Your task to perform on an android device: Go to accessibility settings Image 0: 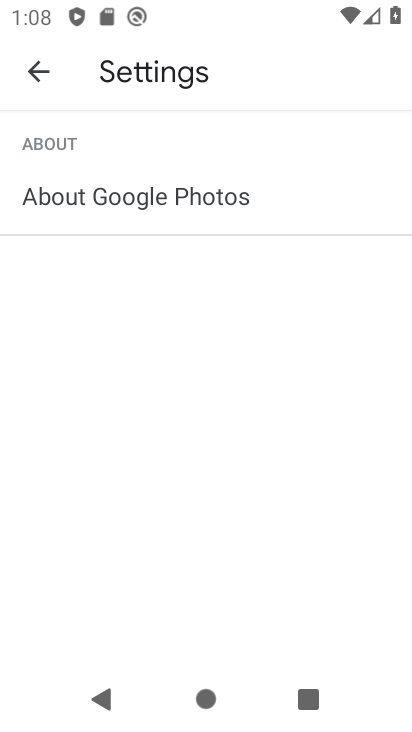
Step 0: press back button
Your task to perform on an android device: Go to accessibility settings Image 1: 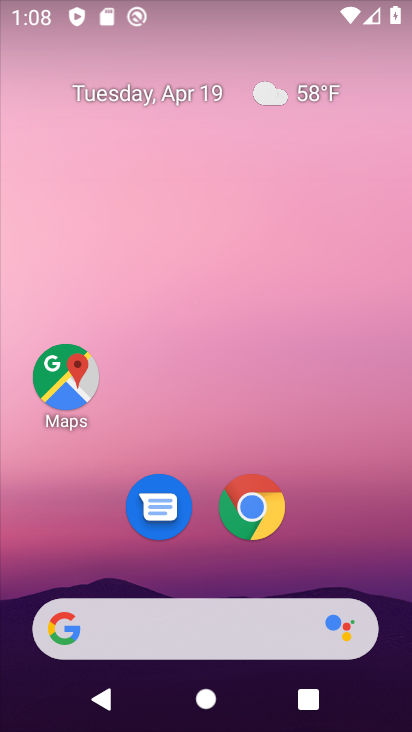
Step 1: drag from (199, 555) to (207, 104)
Your task to perform on an android device: Go to accessibility settings Image 2: 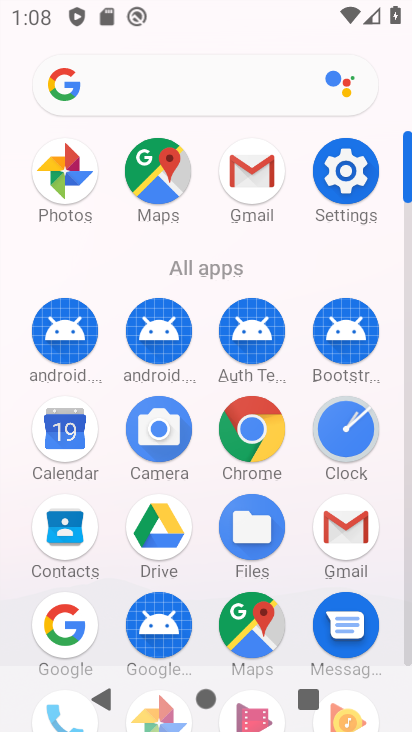
Step 2: click (346, 164)
Your task to perform on an android device: Go to accessibility settings Image 3: 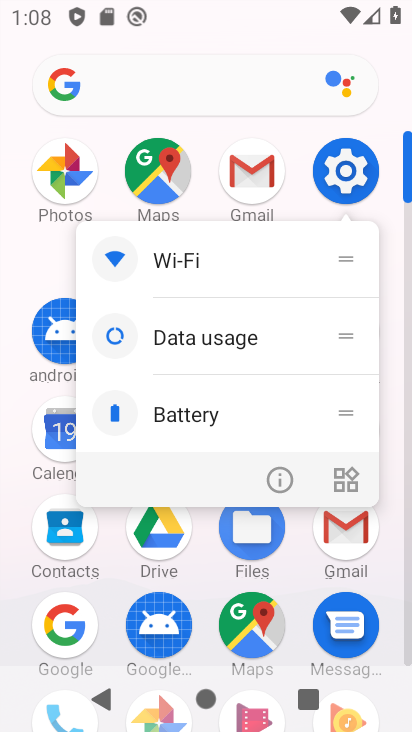
Step 3: click (351, 165)
Your task to perform on an android device: Go to accessibility settings Image 4: 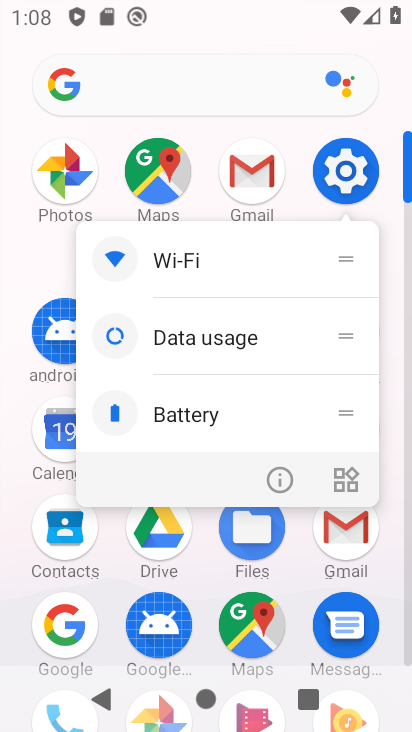
Step 4: click (345, 167)
Your task to perform on an android device: Go to accessibility settings Image 5: 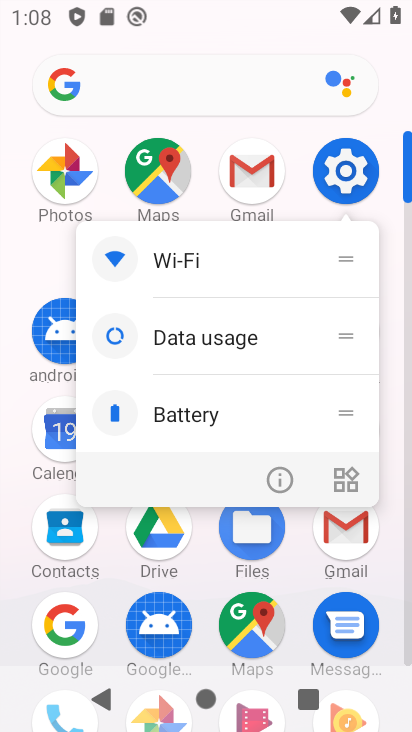
Step 5: click (345, 165)
Your task to perform on an android device: Go to accessibility settings Image 6: 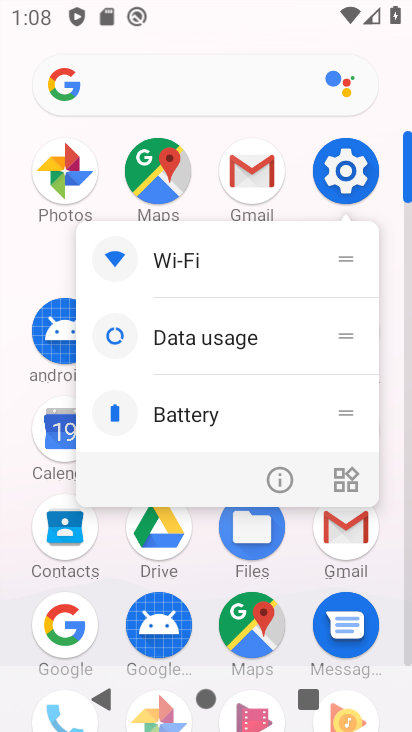
Step 6: click (344, 170)
Your task to perform on an android device: Go to accessibility settings Image 7: 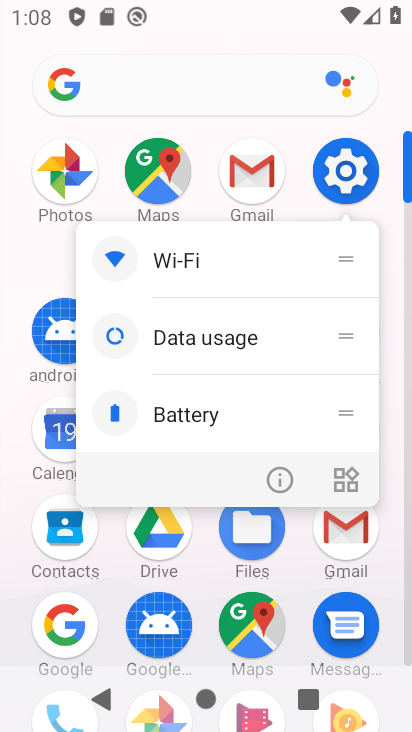
Step 7: click (351, 172)
Your task to perform on an android device: Go to accessibility settings Image 8: 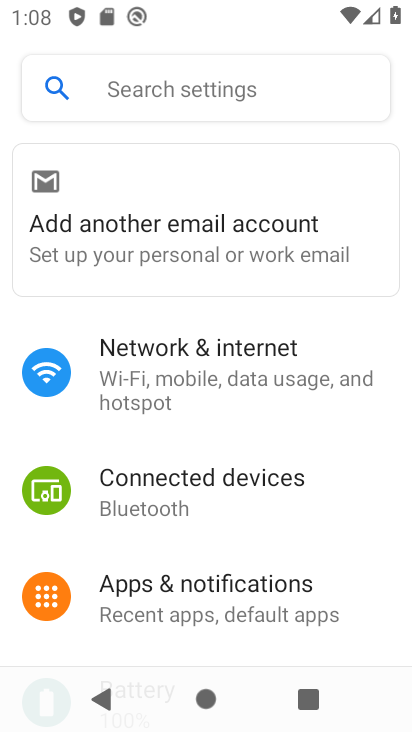
Step 8: drag from (248, 571) to (274, 58)
Your task to perform on an android device: Go to accessibility settings Image 9: 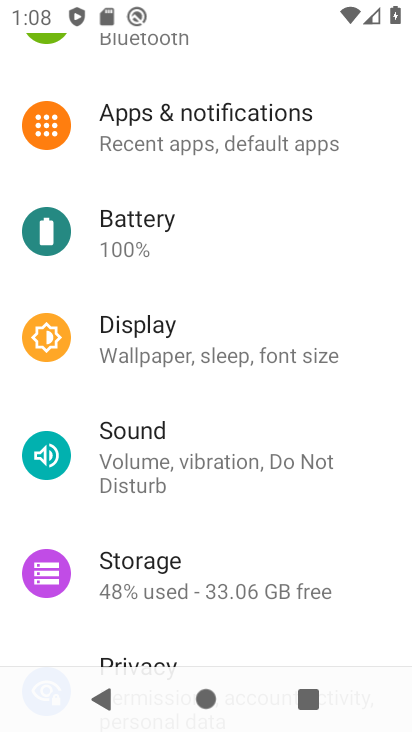
Step 9: drag from (207, 446) to (247, 166)
Your task to perform on an android device: Go to accessibility settings Image 10: 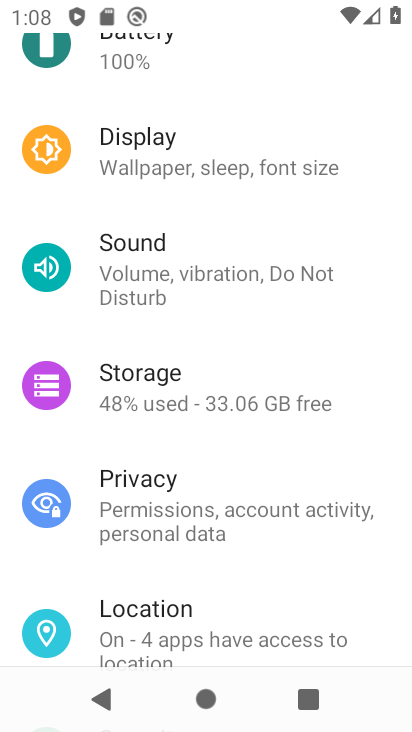
Step 10: drag from (191, 503) to (260, 259)
Your task to perform on an android device: Go to accessibility settings Image 11: 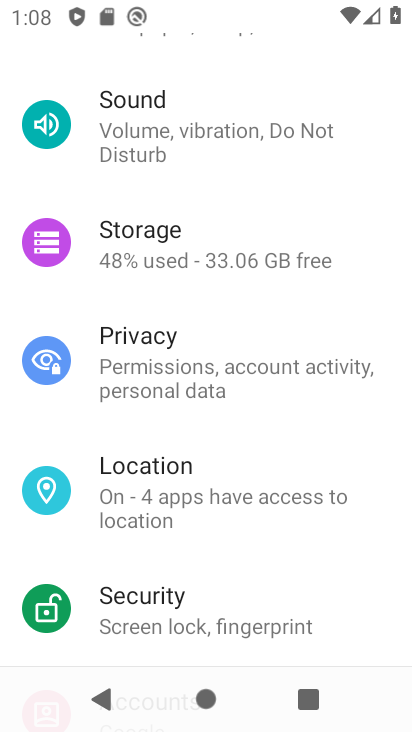
Step 11: drag from (201, 611) to (237, 244)
Your task to perform on an android device: Go to accessibility settings Image 12: 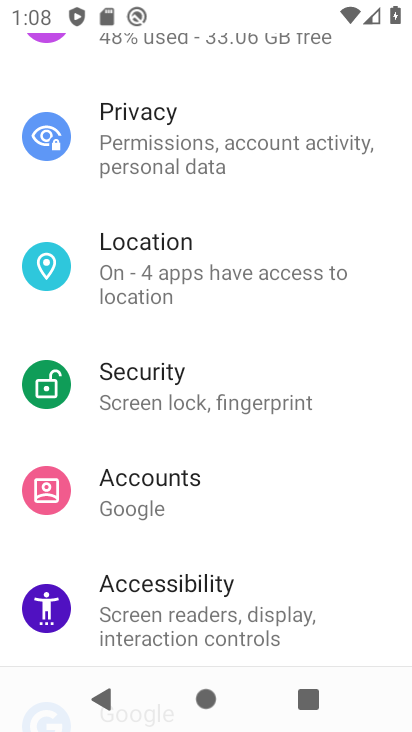
Step 12: click (135, 611)
Your task to perform on an android device: Go to accessibility settings Image 13: 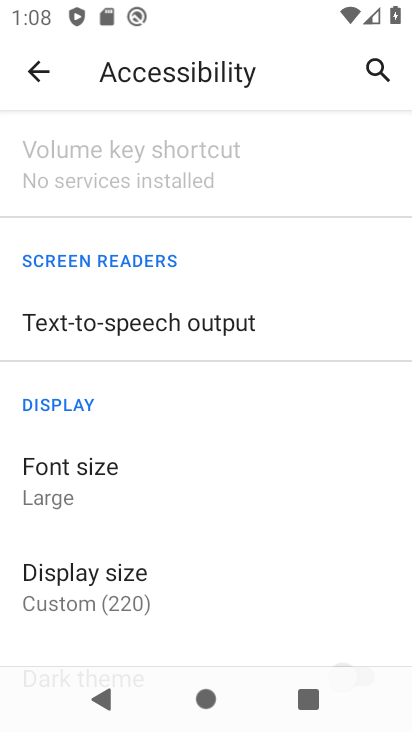
Step 13: task complete